Your task to perform on an android device: Go to Maps Image 0: 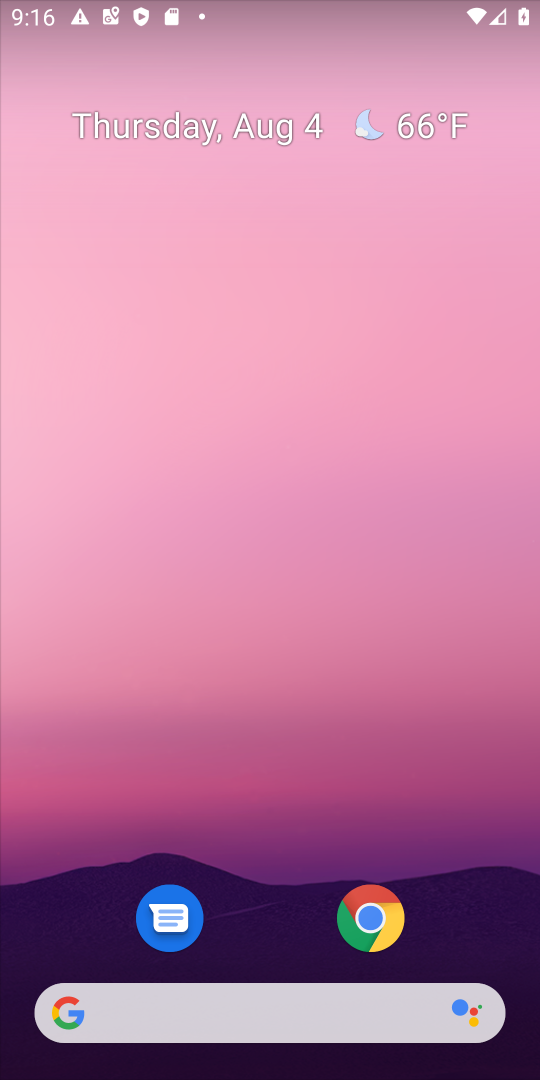
Step 0: press home button
Your task to perform on an android device: Go to Maps Image 1: 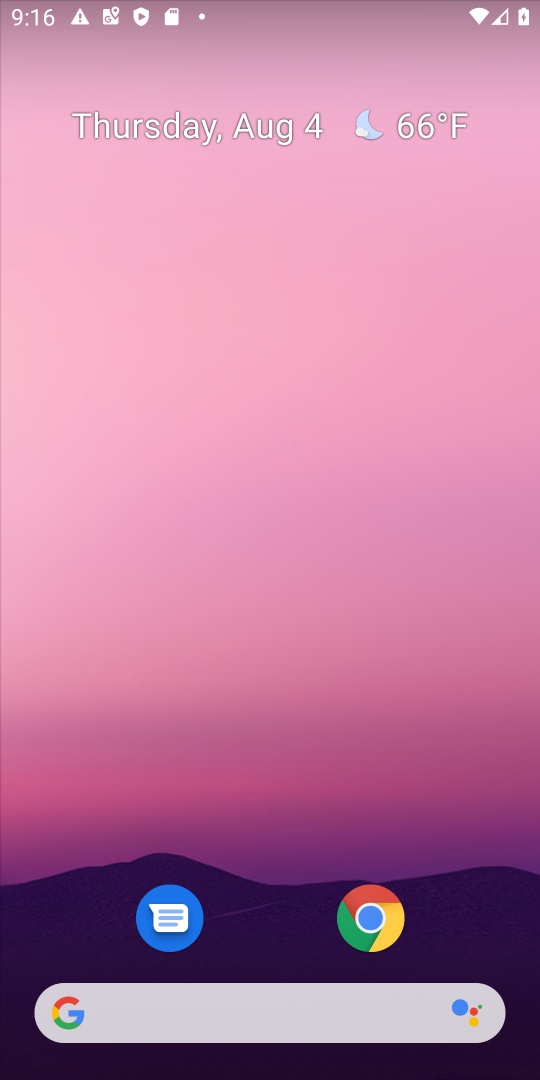
Step 1: drag from (271, 962) to (281, 40)
Your task to perform on an android device: Go to Maps Image 2: 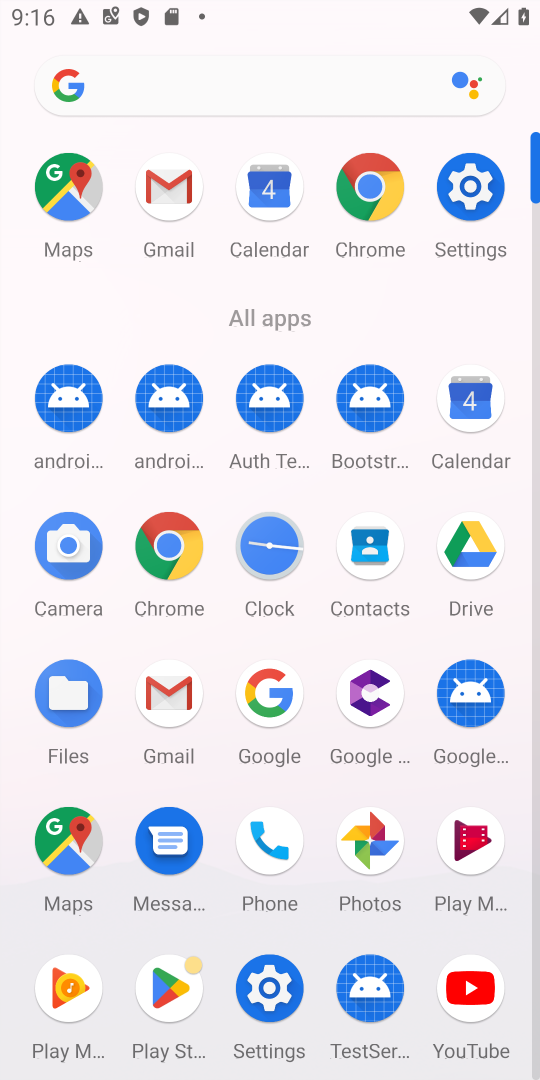
Step 2: click (67, 176)
Your task to perform on an android device: Go to Maps Image 3: 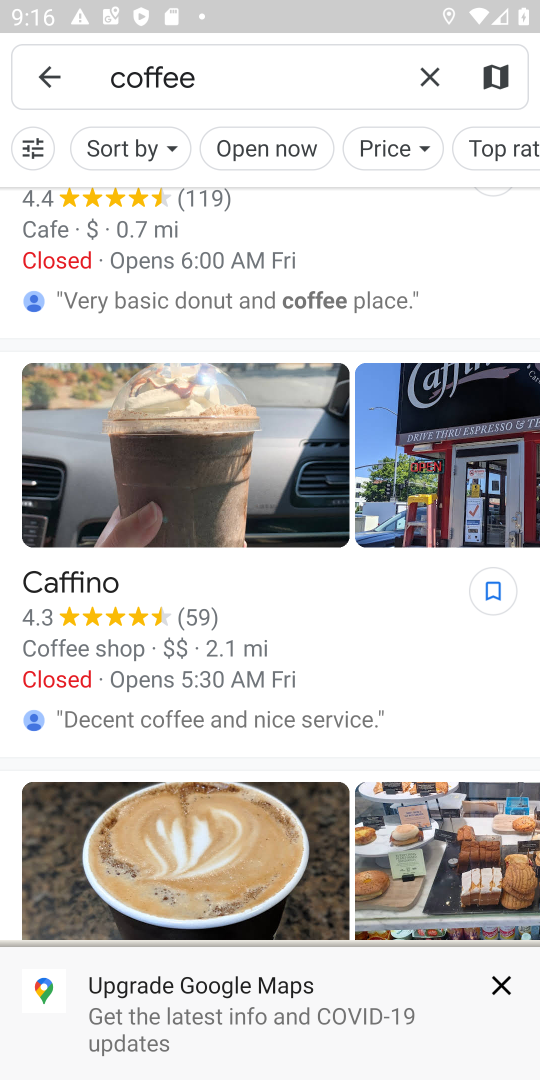
Step 3: drag from (338, 757) to (330, 60)
Your task to perform on an android device: Go to Maps Image 4: 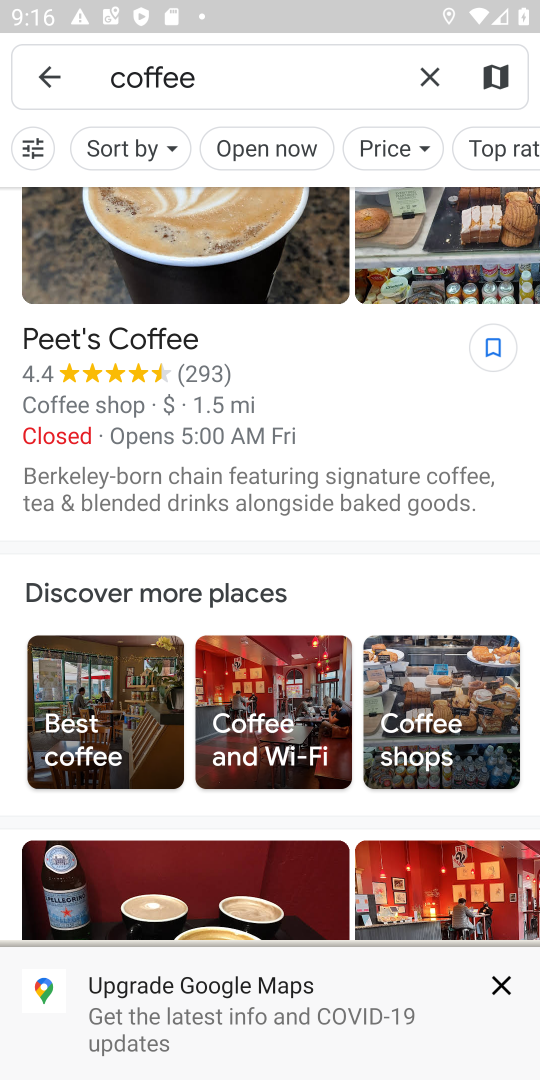
Step 4: drag from (352, 817) to (345, 318)
Your task to perform on an android device: Go to Maps Image 5: 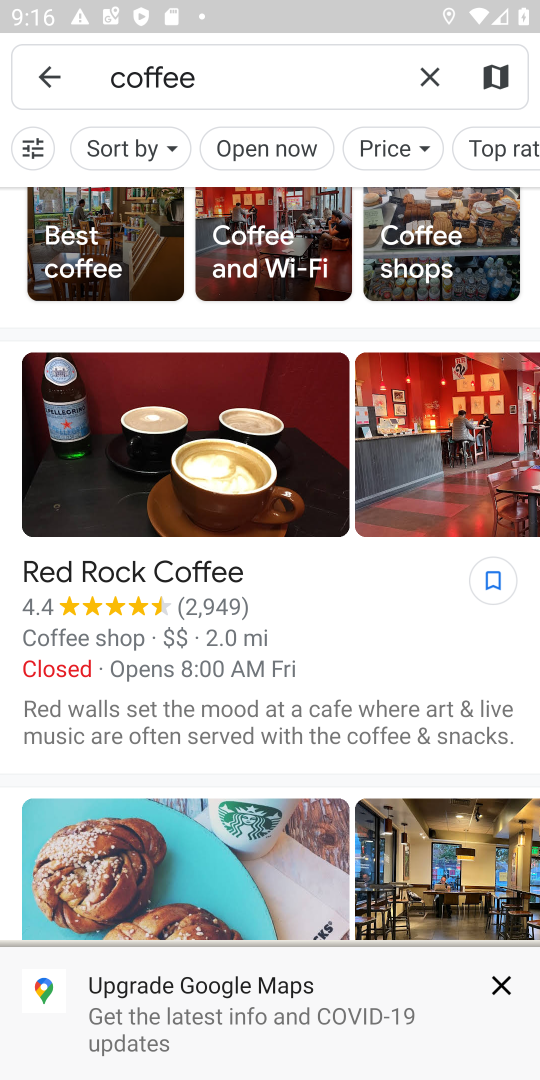
Step 5: click (52, 81)
Your task to perform on an android device: Go to Maps Image 6: 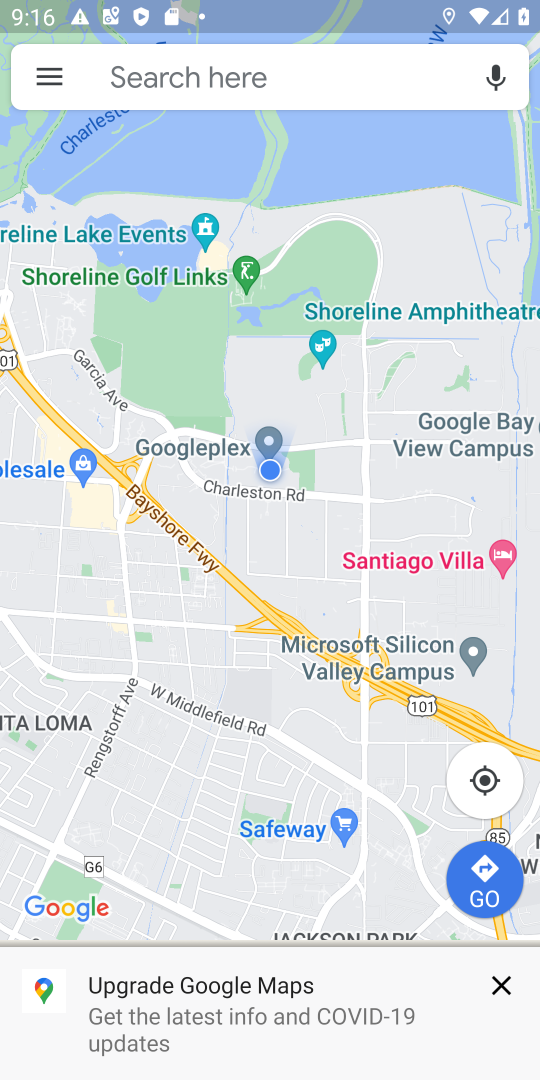
Step 6: task complete